Your task to perform on an android device: Go to Wikipedia Image 0: 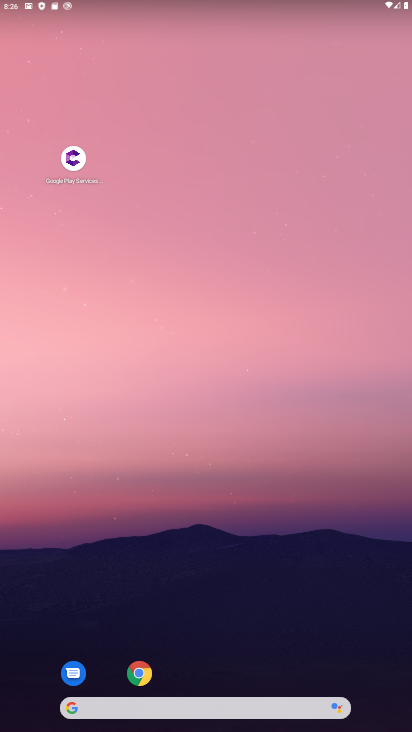
Step 0: click (141, 461)
Your task to perform on an android device: Go to Wikipedia Image 1: 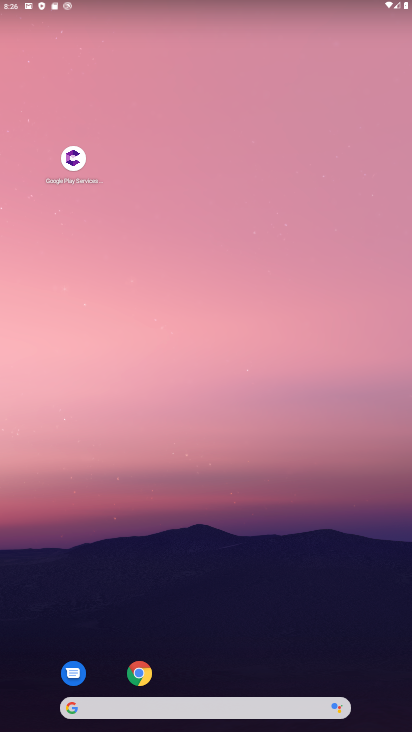
Step 1: drag from (222, 689) to (233, 318)
Your task to perform on an android device: Go to Wikipedia Image 2: 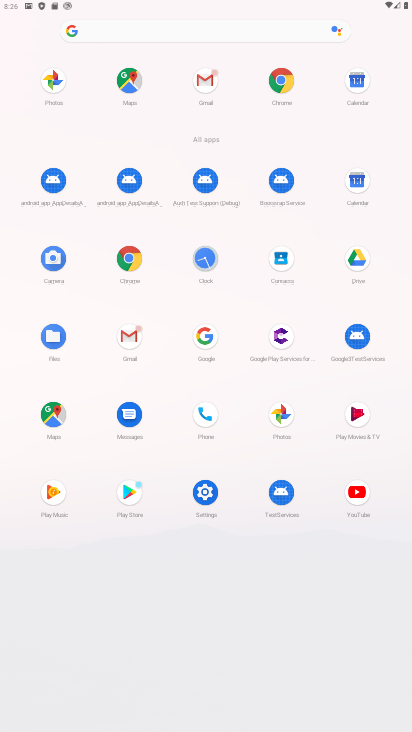
Step 2: click (282, 76)
Your task to perform on an android device: Go to Wikipedia Image 3: 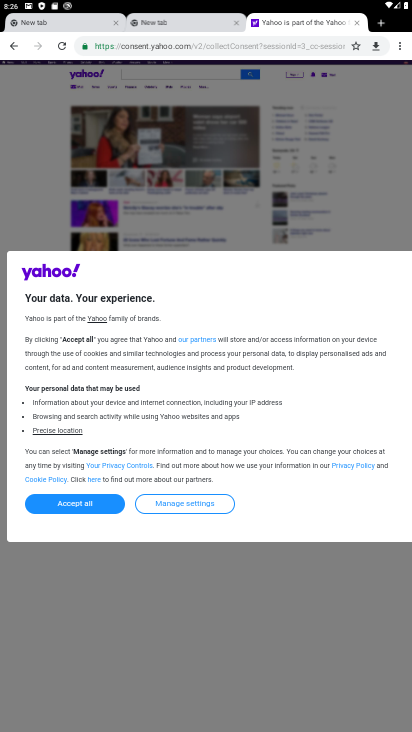
Step 3: click (358, 27)
Your task to perform on an android device: Go to Wikipedia Image 4: 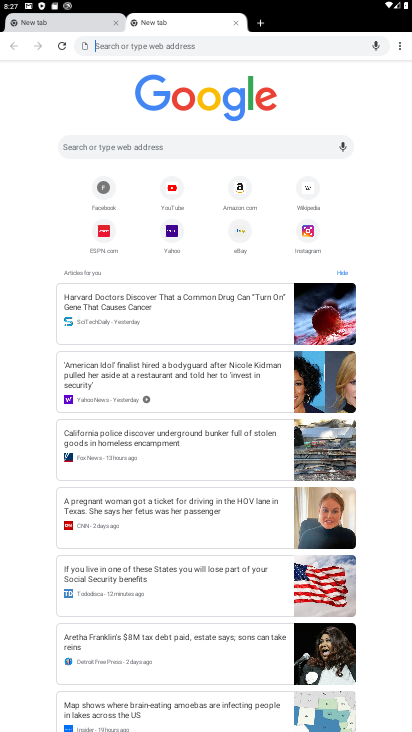
Step 4: click (306, 190)
Your task to perform on an android device: Go to Wikipedia Image 5: 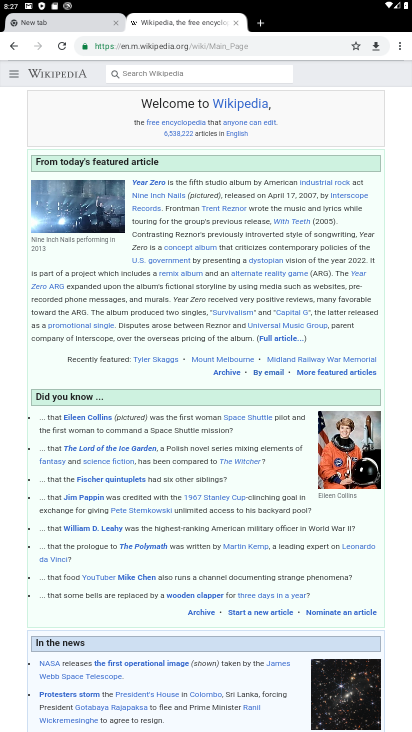
Step 5: task complete